Your task to perform on an android device: clear all cookies in the chrome app Image 0: 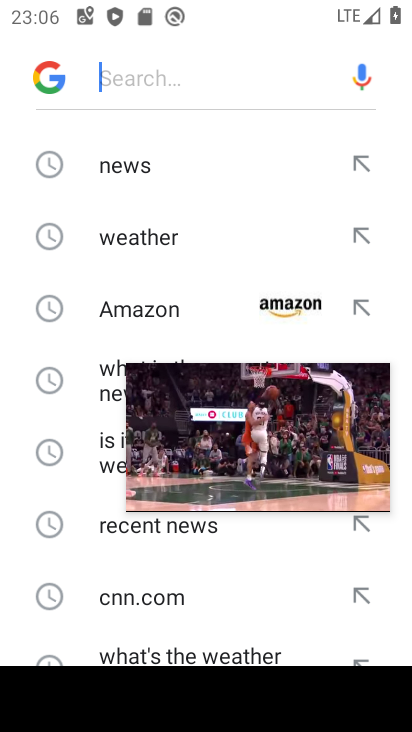
Step 0: press home button
Your task to perform on an android device: clear all cookies in the chrome app Image 1: 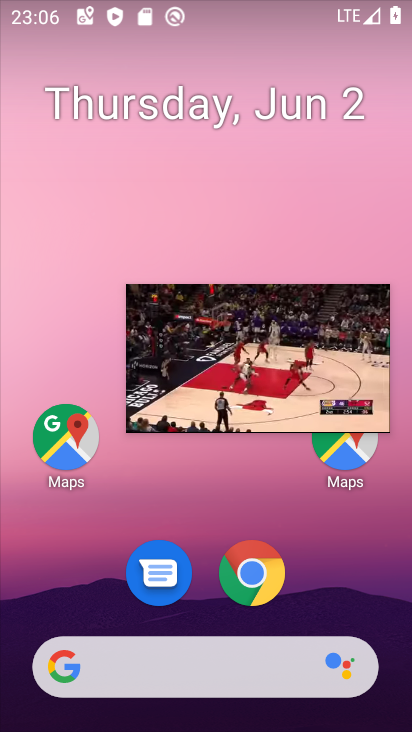
Step 1: click (368, 296)
Your task to perform on an android device: clear all cookies in the chrome app Image 2: 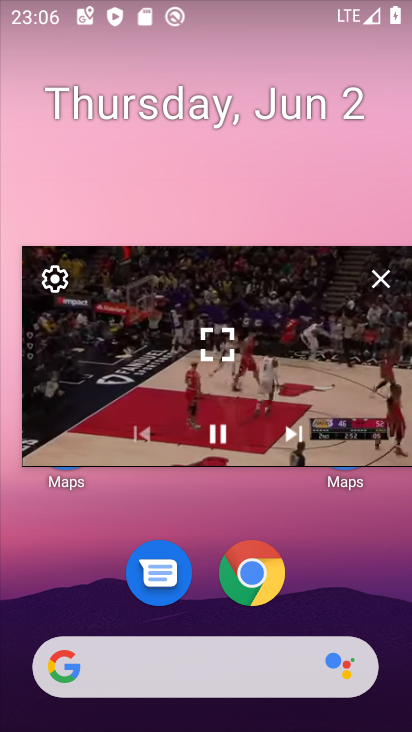
Step 2: click (382, 274)
Your task to perform on an android device: clear all cookies in the chrome app Image 3: 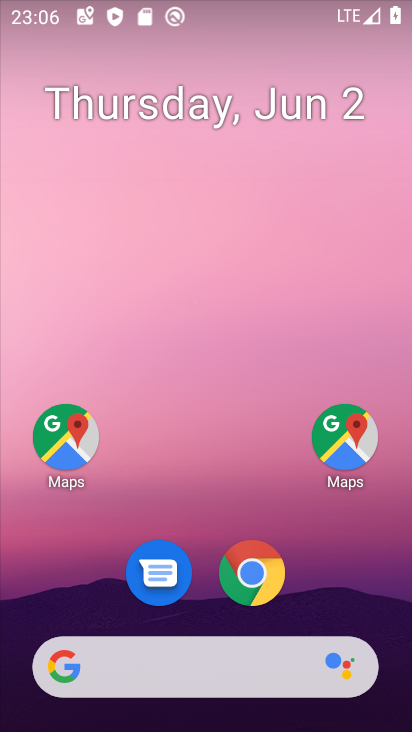
Step 3: click (247, 564)
Your task to perform on an android device: clear all cookies in the chrome app Image 4: 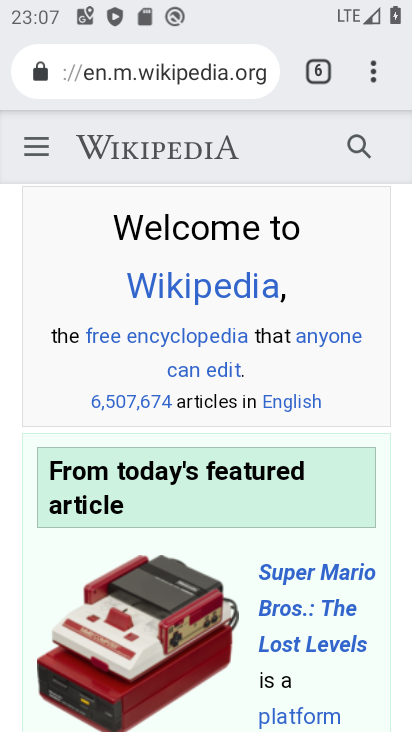
Step 4: click (374, 78)
Your task to perform on an android device: clear all cookies in the chrome app Image 5: 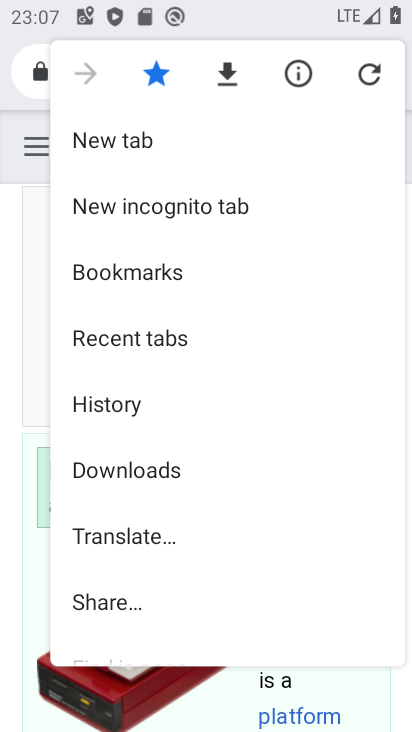
Step 5: drag from (305, 599) to (326, 341)
Your task to perform on an android device: clear all cookies in the chrome app Image 6: 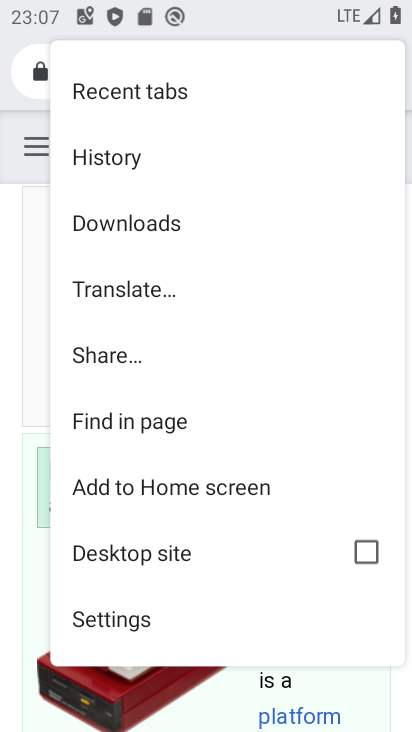
Step 6: click (115, 630)
Your task to perform on an android device: clear all cookies in the chrome app Image 7: 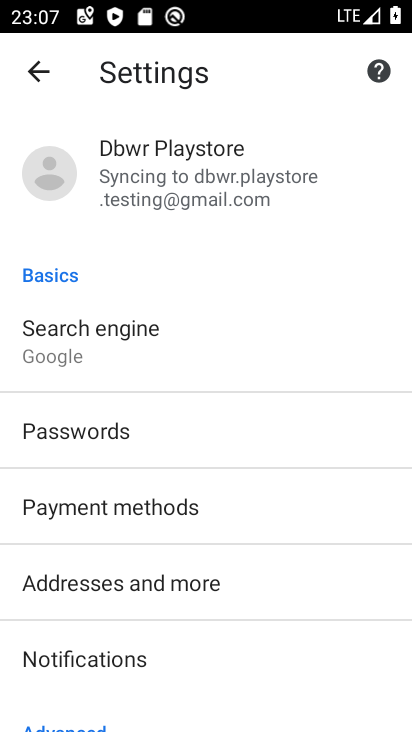
Step 7: drag from (237, 645) to (274, 432)
Your task to perform on an android device: clear all cookies in the chrome app Image 8: 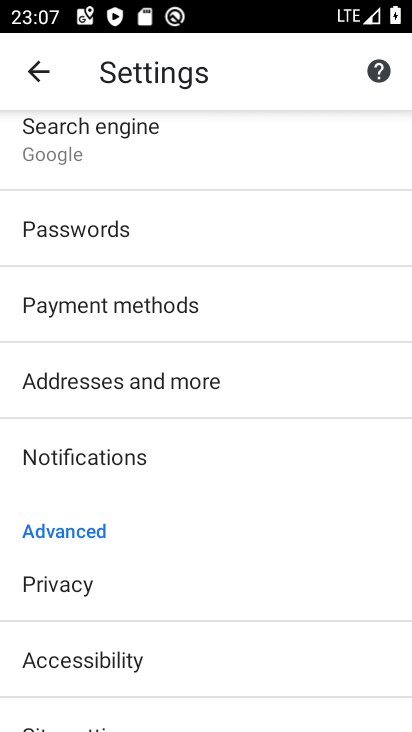
Step 8: drag from (187, 581) to (216, 361)
Your task to perform on an android device: clear all cookies in the chrome app Image 9: 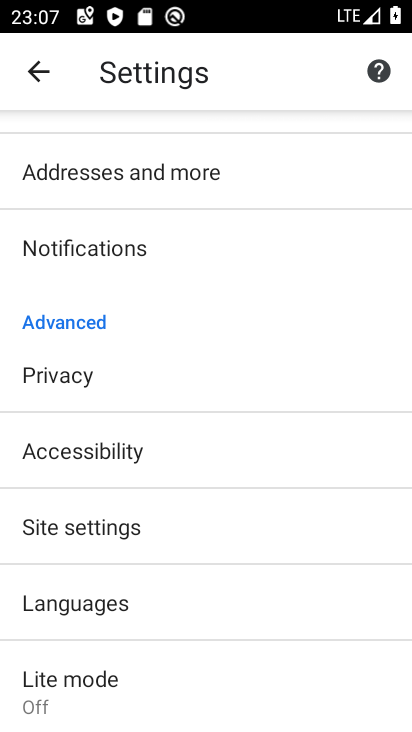
Step 9: click (114, 537)
Your task to perform on an android device: clear all cookies in the chrome app Image 10: 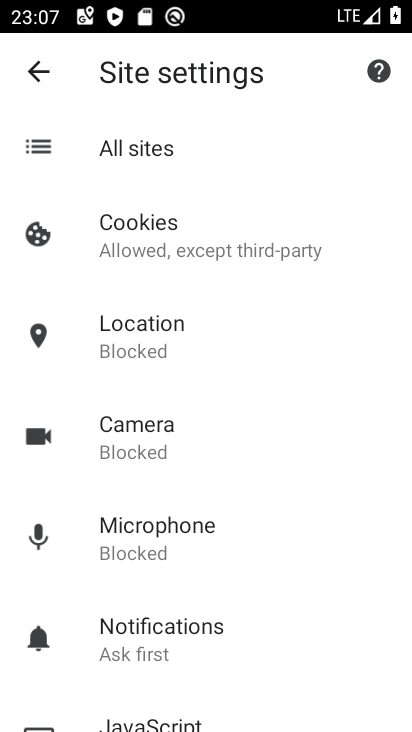
Step 10: click (230, 233)
Your task to perform on an android device: clear all cookies in the chrome app Image 11: 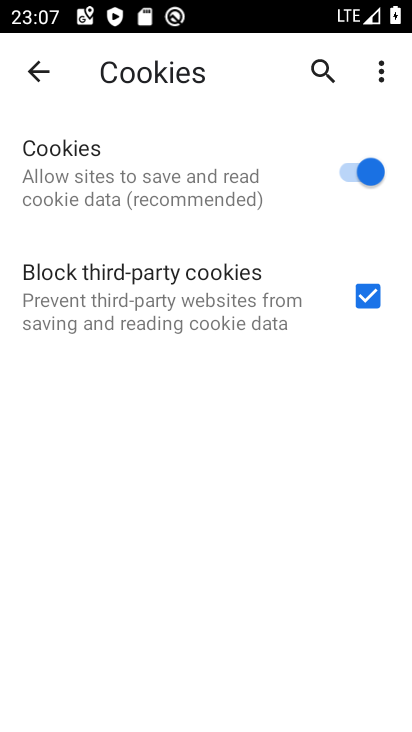
Step 11: press back button
Your task to perform on an android device: clear all cookies in the chrome app Image 12: 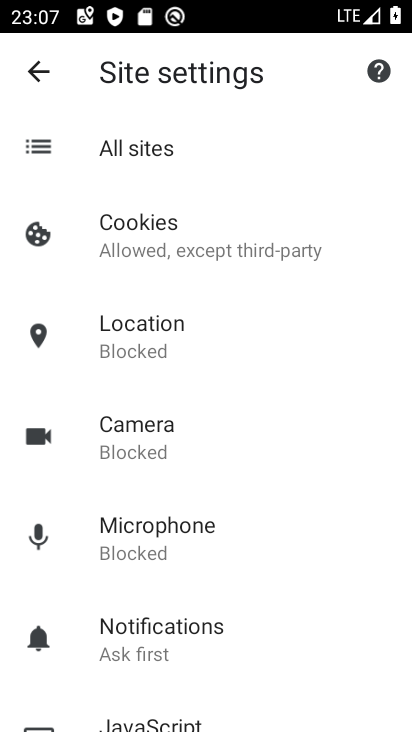
Step 12: drag from (284, 682) to (321, 391)
Your task to perform on an android device: clear all cookies in the chrome app Image 13: 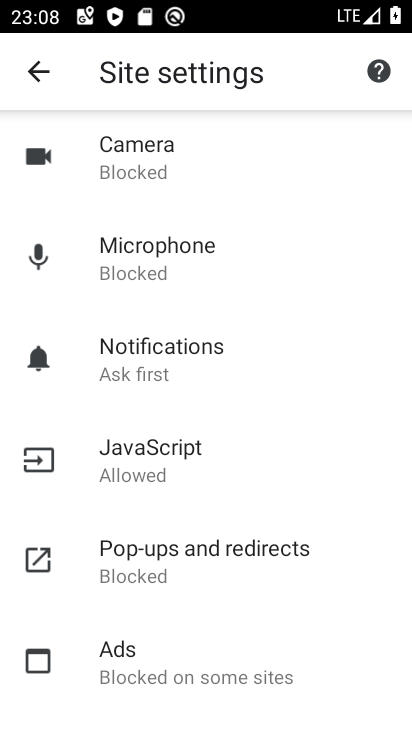
Step 13: drag from (198, 601) to (291, 362)
Your task to perform on an android device: clear all cookies in the chrome app Image 14: 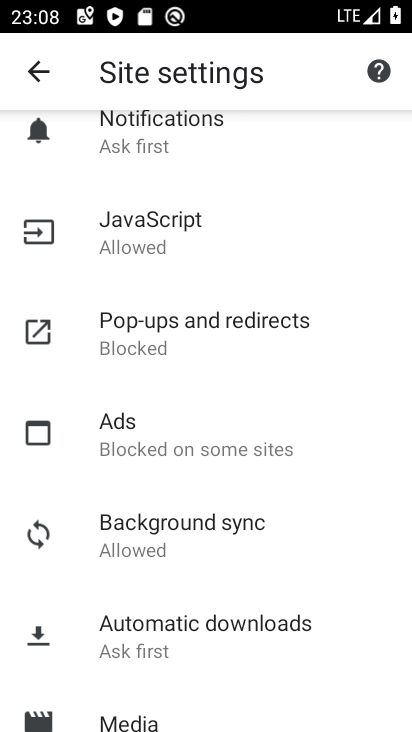
Step 14: drag from (175, 700) to (188, 437)
Your task to perform on an android device: clear all cookies in the chrome app Image 15: 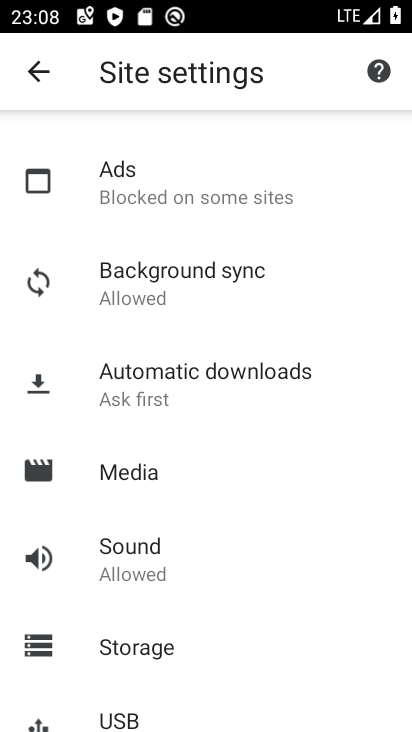
Step 15: drag from (295, 647) to (324, 427)
Your task to perform on an android device: clear all cookies in the chrome app Image 16: 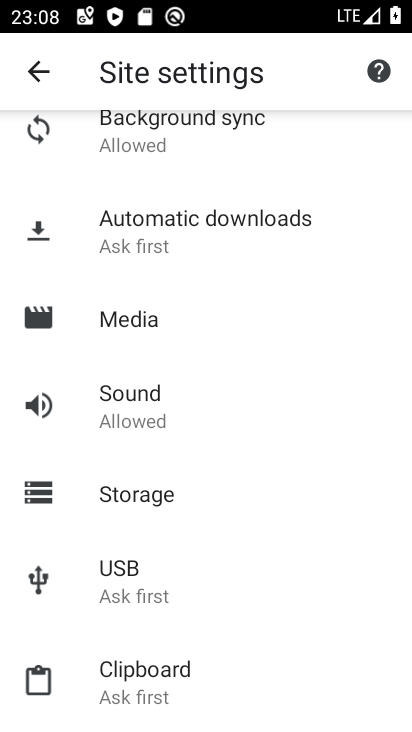
Step 16: press back button
Your task to perform on an android device: clear all cookies in the chrome app Image 17: 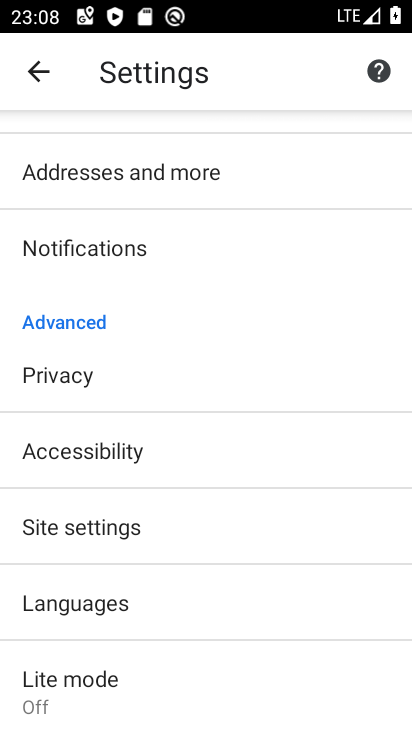
Step 17: click (49, 391)
Your task to perform on an android device: clear all cookies in the chrome app Image 18: 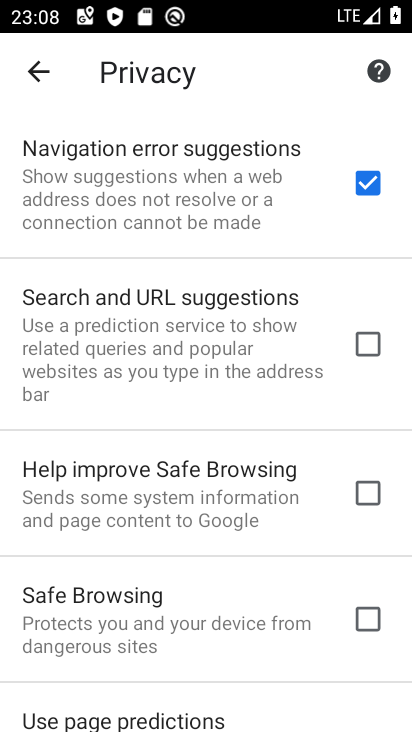
Step 18: drag from (167, 695) to (176, 564)
Your task to perform on an android device: clear all cookies in the chrome app Image 19: 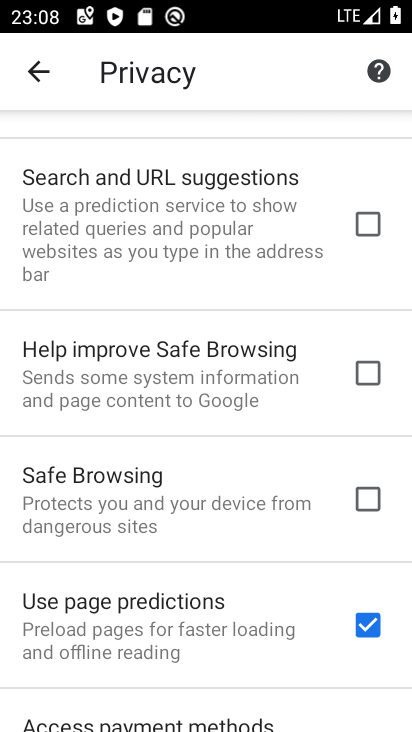
Step 19: click (190, 633)
Your task to perform on an android device: clear all cookies in the chrome app Image 20: 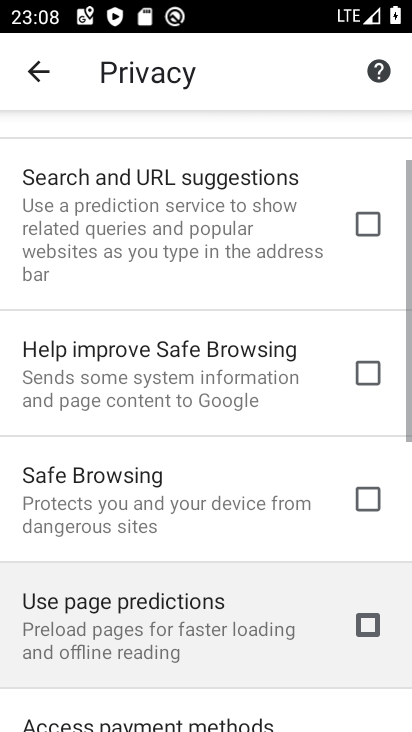
Step 20: drag from (190, 633) to (207, 411)
Your task to perform on an android device: clear all cookies in the chrome app Image 21: 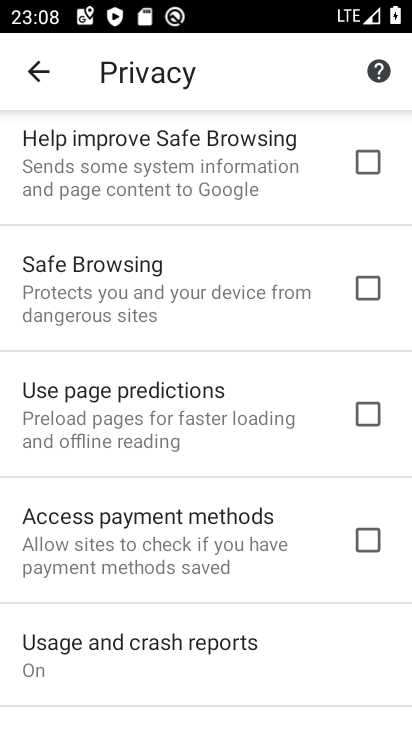
Step 21: drag from (288, 709) to (288, 523)
Your task to perform on an android device: clear all cookies in the chrome app Image 22: 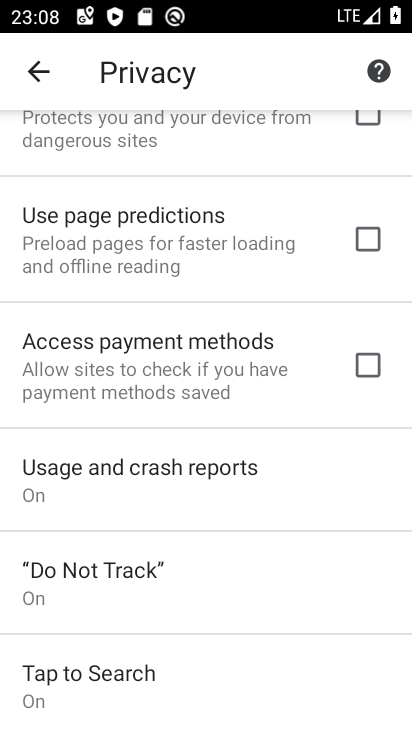
Step 22: drag from (197, 690) to (206, 412)
Your task to perform on an android device: clear all cookies in the chrome app Image 23: 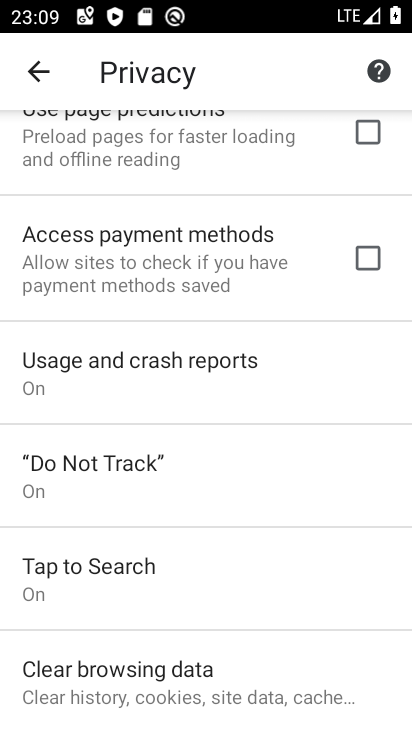
Step 23: click (108, 675)
Your task to perform on an android device: clear all cookies in the chrome app Image 24: 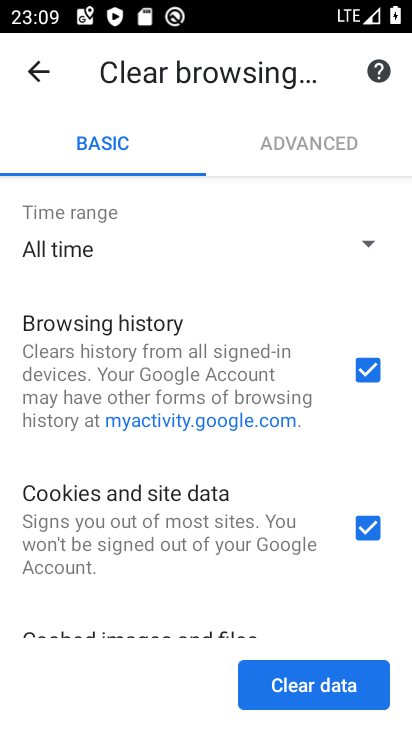
Step 24: click (372, 372)
Your task to perform on an android device: clear all cookies in the chrome app Image 25: 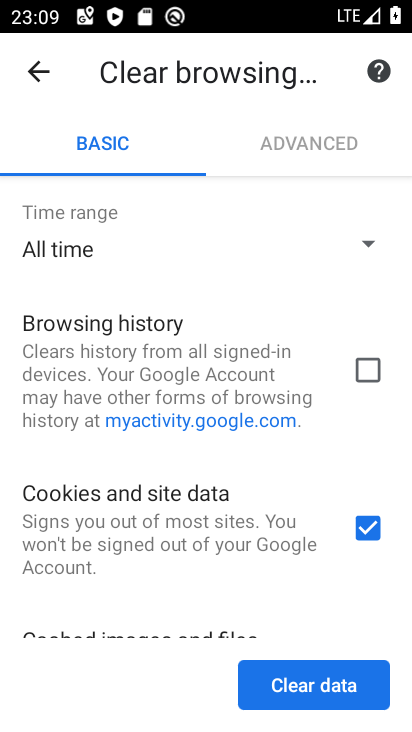
Step 25: click (185, 568)
Your task to perform on an android device: clear all cookies in the chrome app Image 26: 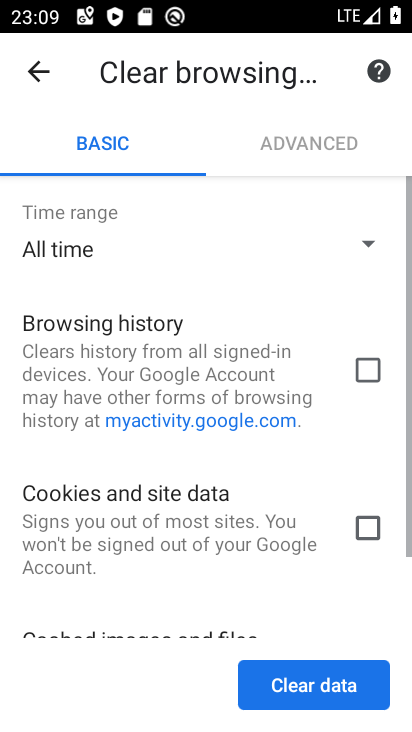
Step 26: task complete